Your task to perform on an android device: Do I have any events today? Image 0: 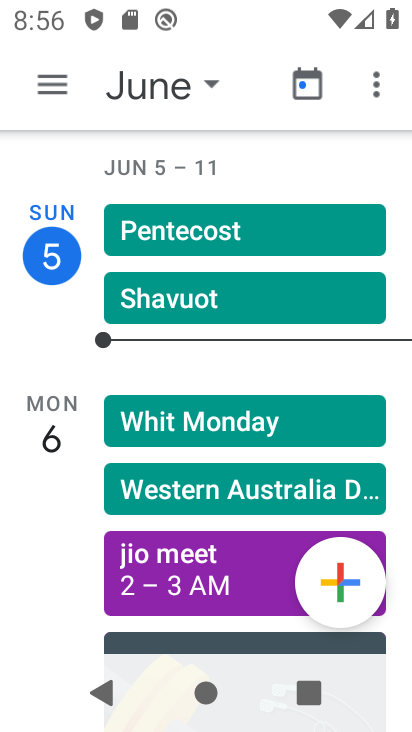
Step 0: click (169, 103)
Your task to perform on an android device: Do I have any events today? Image 1: 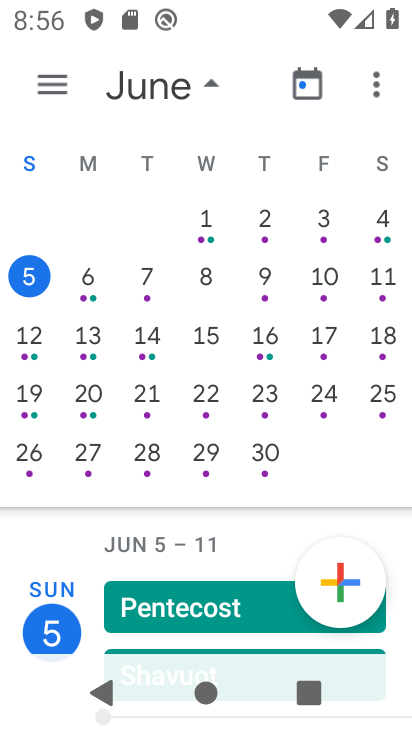
Step 1: click (23, 285)
Your task to perform on an android device: Do I have any events today? Image 2: 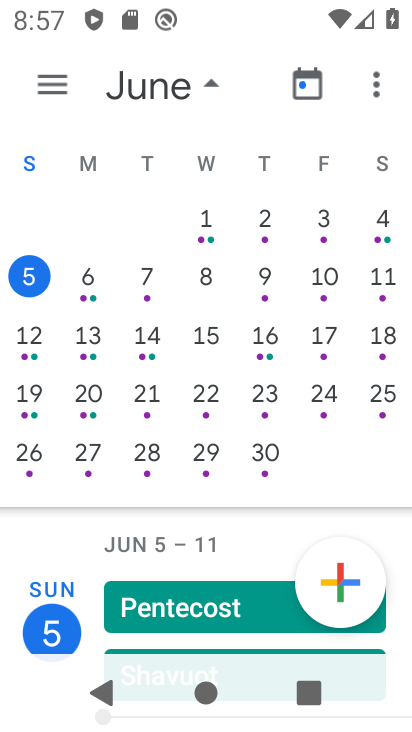
Step 2: task complete